Your task to perform on an android device: show emergency info Image 0: 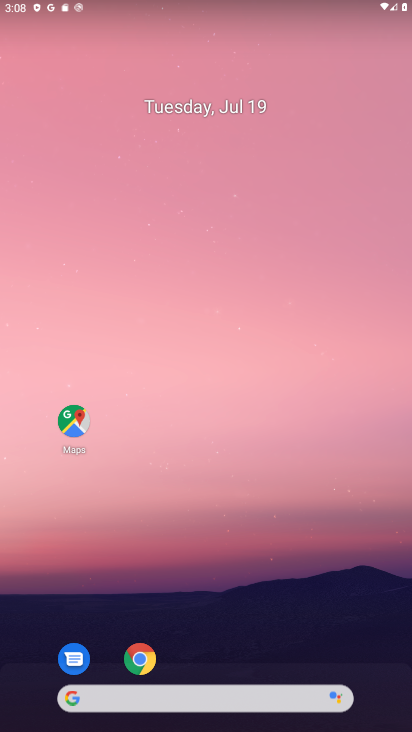
Step 0: drag from (243, 666) to (285, 198)
Your task to perform on an android device: show emergency info Image 1: 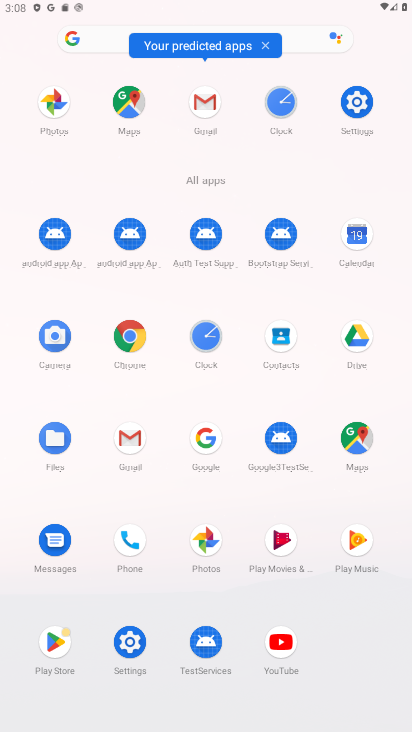
Step 1: click (134, 649)
Your task to perform on an android device: show emergency info Image 2: 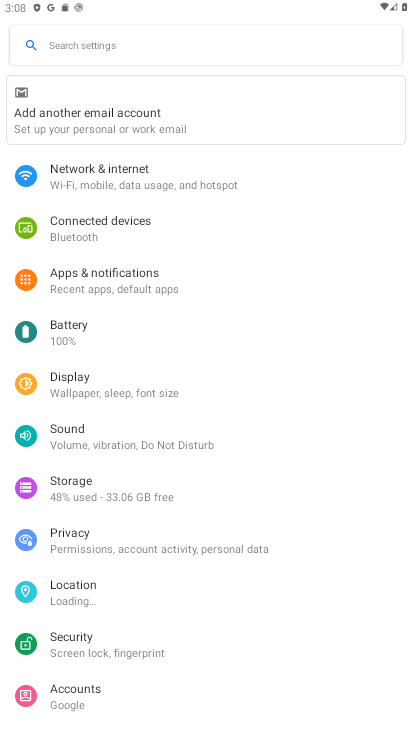
Step 2: drag from (146, 679) to (313, 183)
Your task to perform on an android device: show emergency info Image 3: 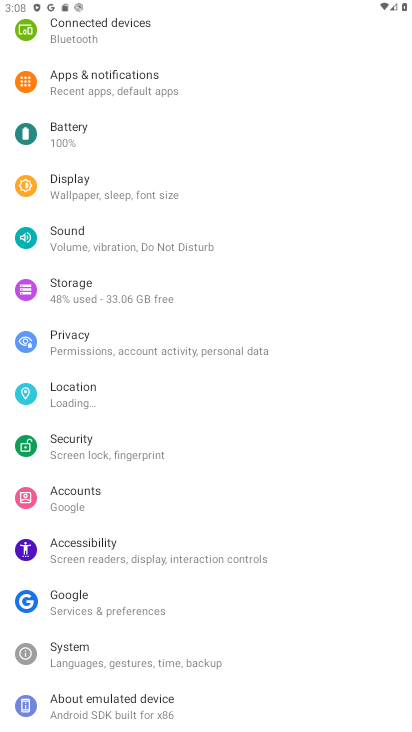
Step 3: click (168, 720)
Your task to perform on an android device: show emergency info Image 4: 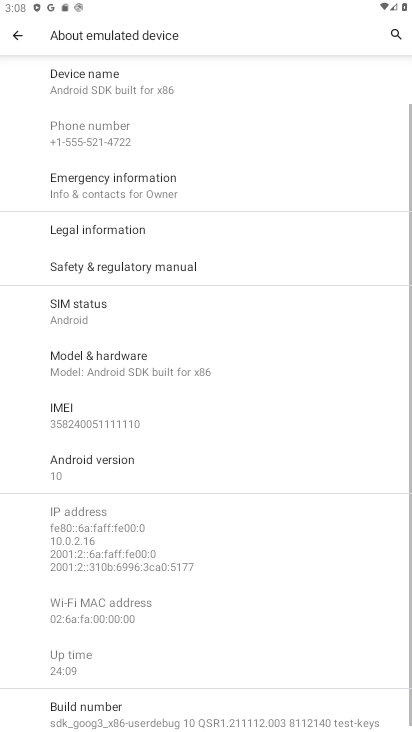
Step 4: click (188, 197)
Your task to perform on an android device: show emergency info Image 5: 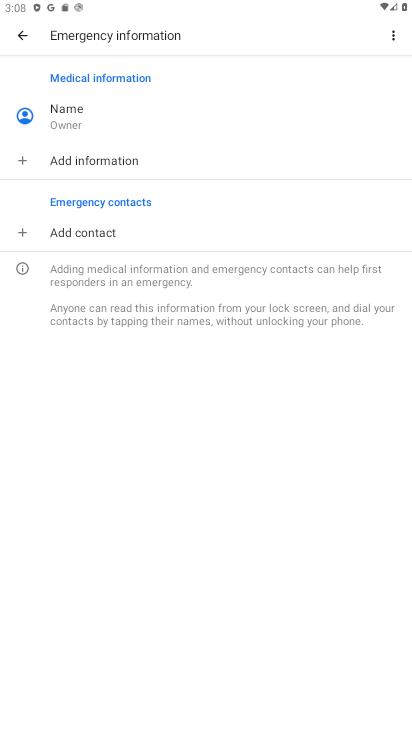
Step 5: task complete